Your task to perform on an android device: change your default location settings in chrome Image 0: 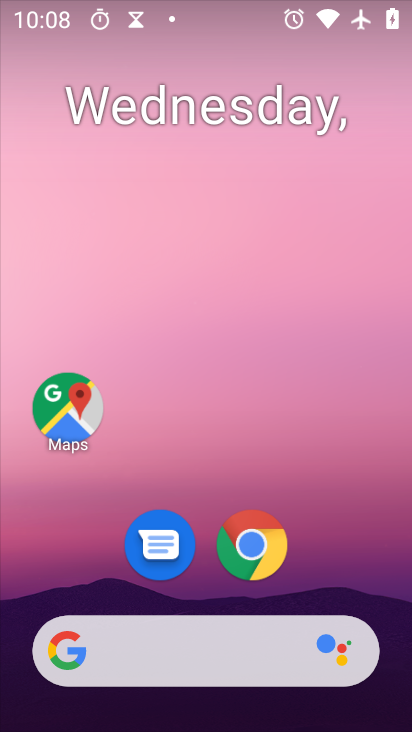
Step 0: click (254, 560)
Your task to perform on an android device: change your default location settings in chrome Image 1: 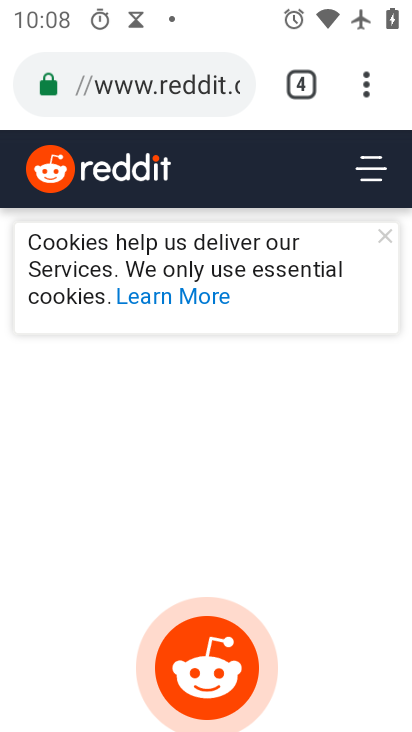
Step 1: drag from (364, 84) to (198, 606)
Your task to perform on an android device: change your default location settings in chrome Image 2: 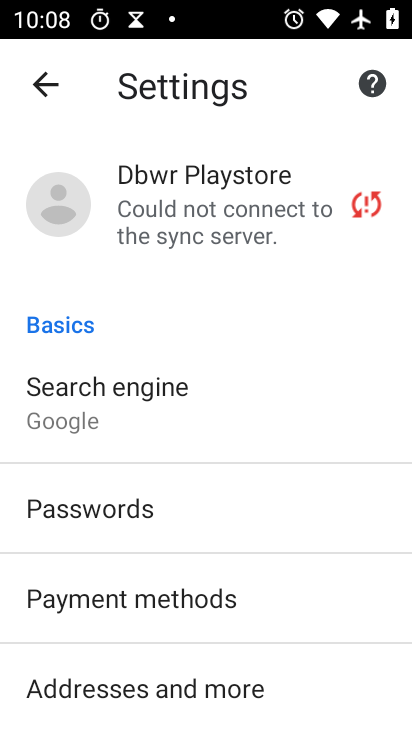
Step 2: drag from (176, 646) to (373, 43)
Your task to perform on an android device: change your default location settings in chrome Image 3: 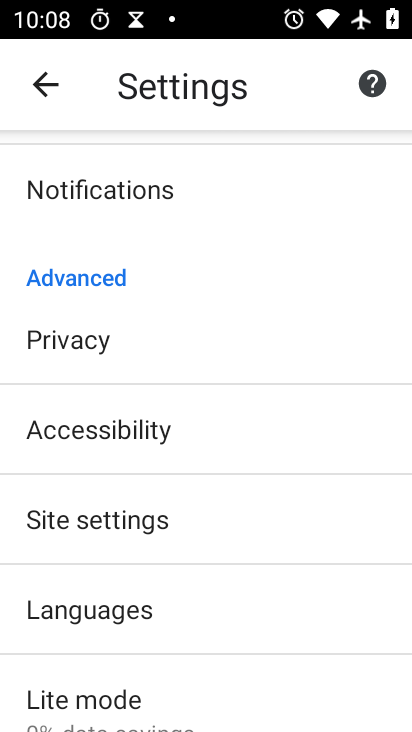
Step 3: click (127, 517)
Your task to perform on an android device: change your default location settings in chrome Image 4: 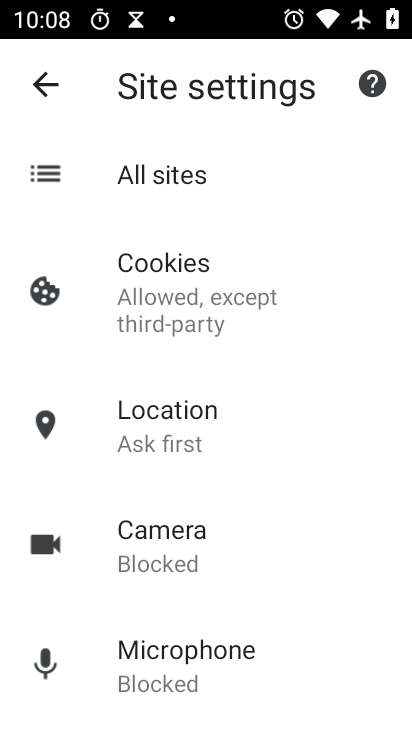
Step 4: click (198, 440)
Your task to perform on an android device: change your default location settings in chrome Image 5: 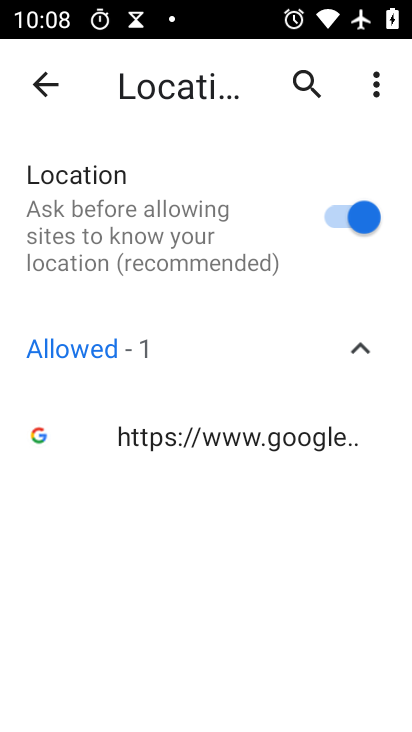
Step 5: click (346, 213)
Your task to perform on an android device: change your default location settings in chrome Image 6: 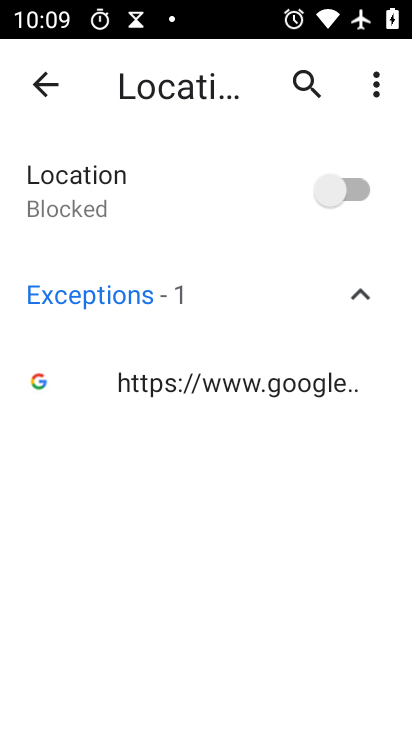
Step 6: task complete